Your task to perform on an android device: turn pop-ups off in chrome Image 0: 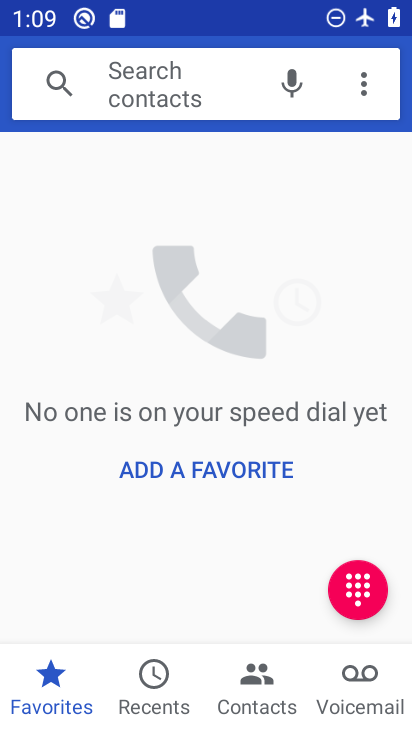
Step 0: press home button
Your task to perform on an android device: turn pop-ups off in chrome Image 1: 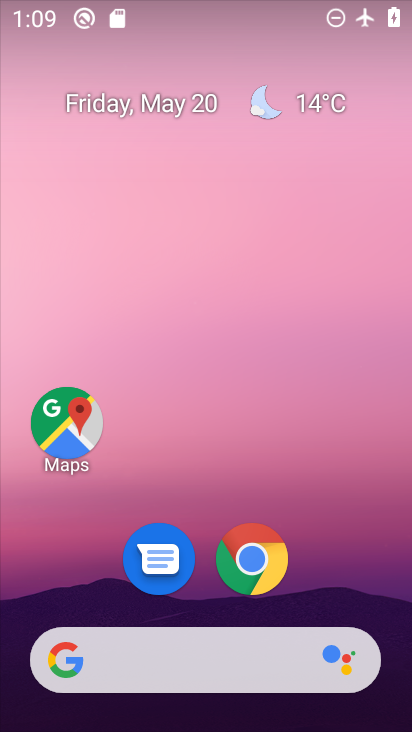
Step 1: drag from (379, 587) to (372, 300)
Your task to perform on an android device: turn pop-ups off in chrome Image 2: 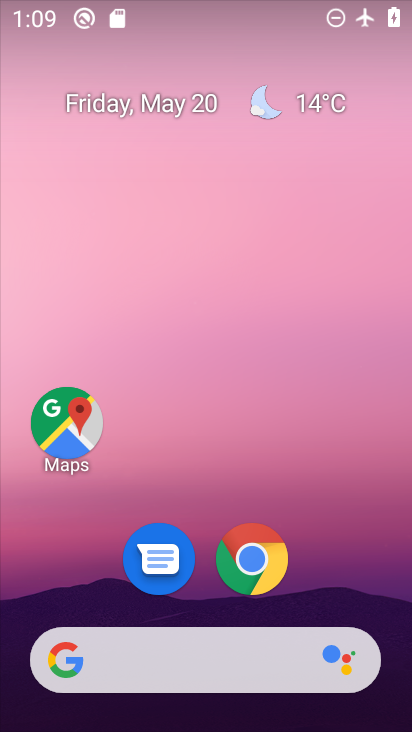
Step 2: click (244, 566)
Your task to perform on an android device: turn pop-ups off in chrome Image 3: 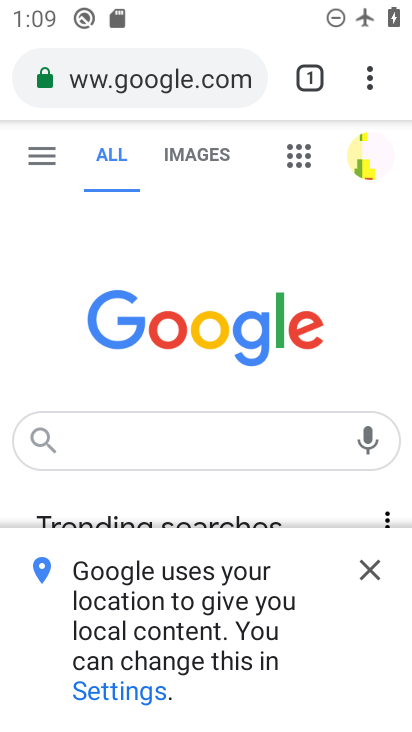
Step 3: click (375, 561)
Your task to perform on an android device: turn pop-ups off in chrome Image 4: 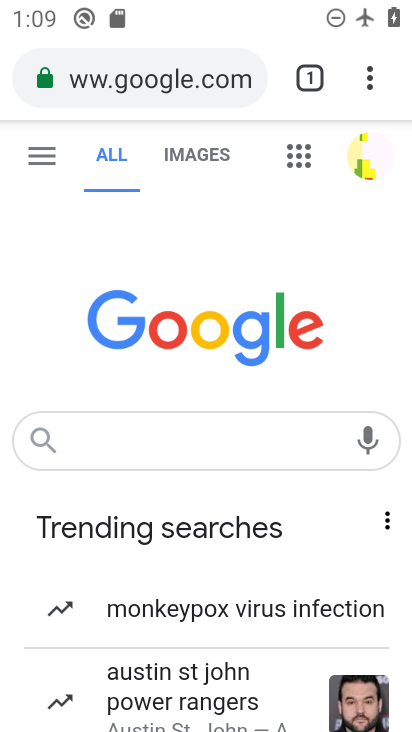
Step 4: click (365, 75)
Your task to perform on an android device: turn pop-ups off in chrome Image 5: 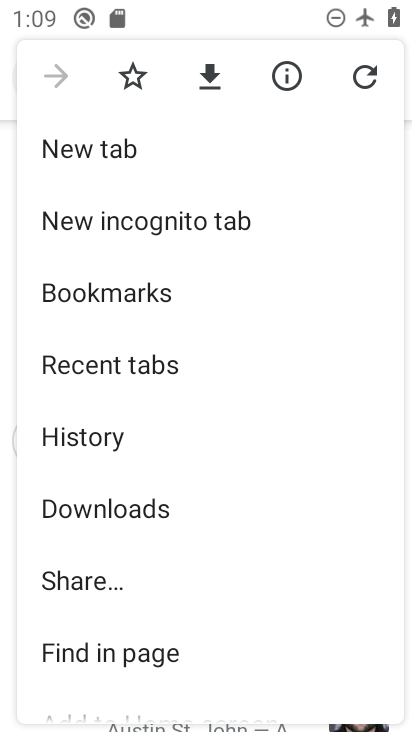
Step 5: drag from (259, 479) to (269, 128)
Your task to perform on an android device: turn pop-ups off in chrome Image 6: 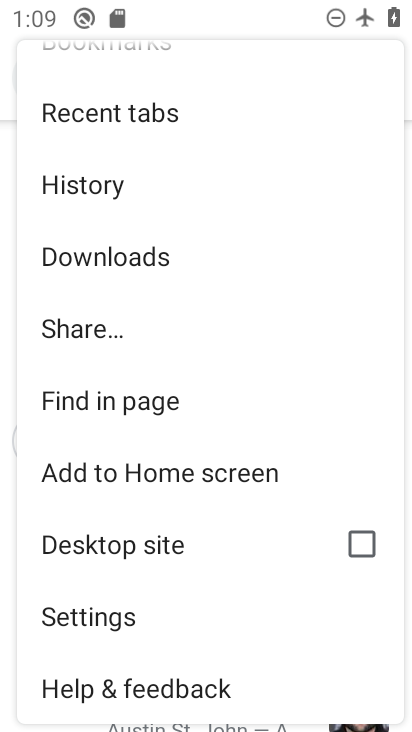
Step 6: click (205, 595)
Your task to perform on an android device: turn pop-ups off in chrome Image 7: 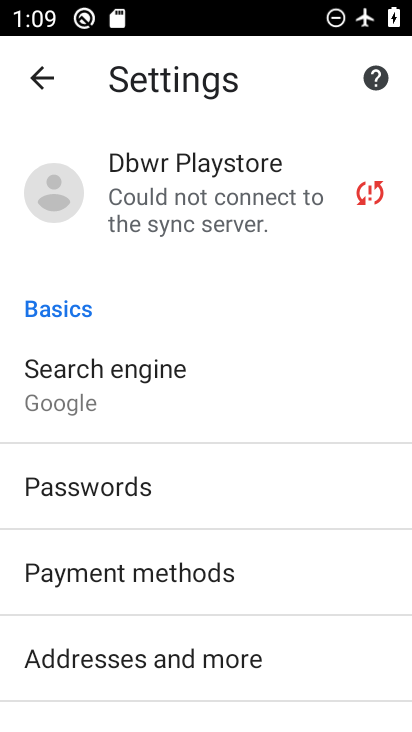
Step 7: task complete